Your task to perform on an android device: Show me the alarms in the clock app Image 0: 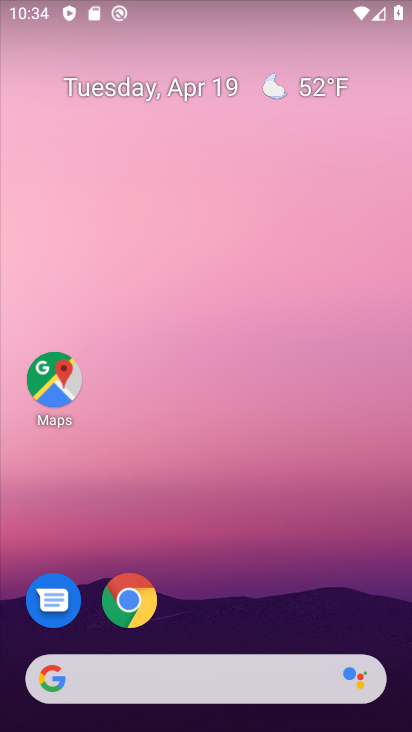
Step 0: click (204, 43)
Your task to perform on an android device: Show me the alarms in the clock app Image 1: 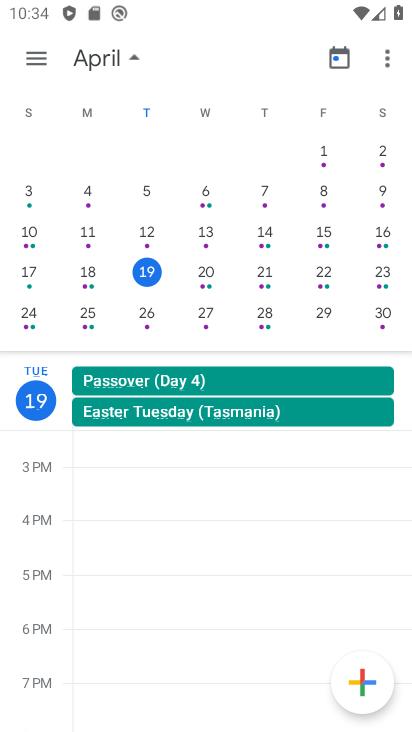
Step 1: press home button
Your task to perform on an android device: Show me the alarms in the clock app Image 2: 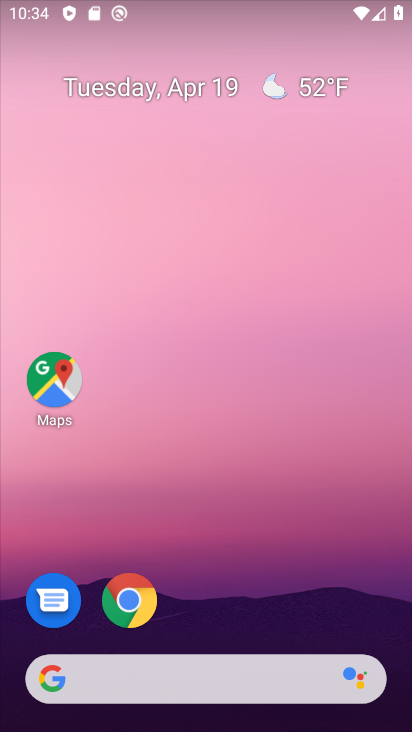
Step 2: drag from (224, 655) to (224, 21)
Your task to perform on an android device: Show me the alarms in the clock app Image 3: 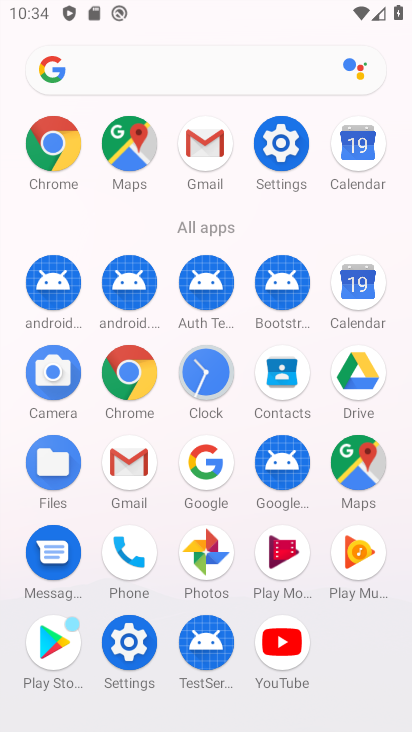
Step 3: click (199, 377)
Your task to perform on an android device: Show me the alarms in the clock app Image 4: 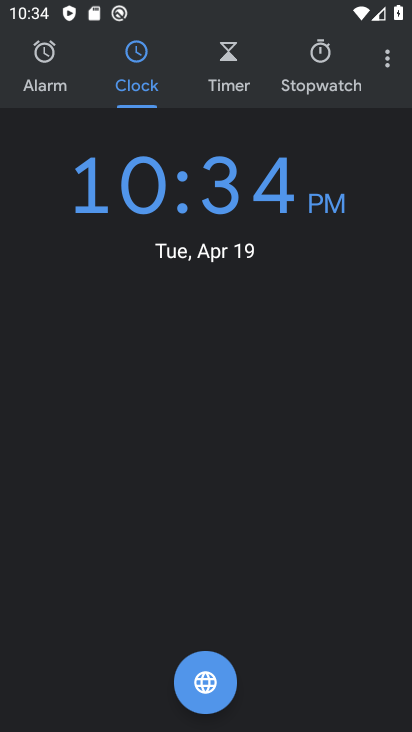
Step 4: click (62, 62)
Your task to perform on an android device: Show me the alarms in the clock app Image 5: 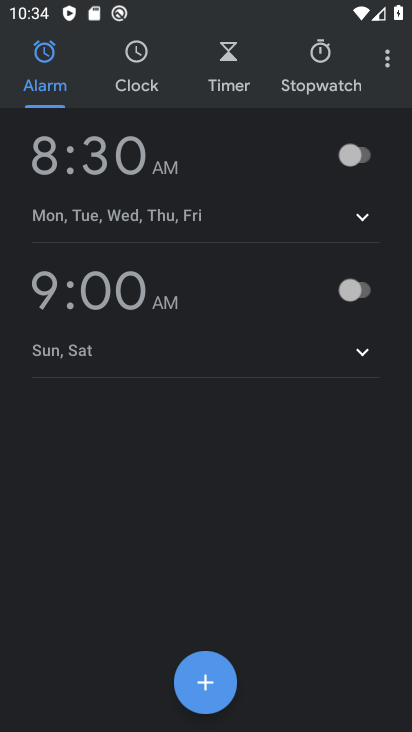
Step 5: task complete